Your task to perform on an android device: open a new tab in the chrome app Image 0: 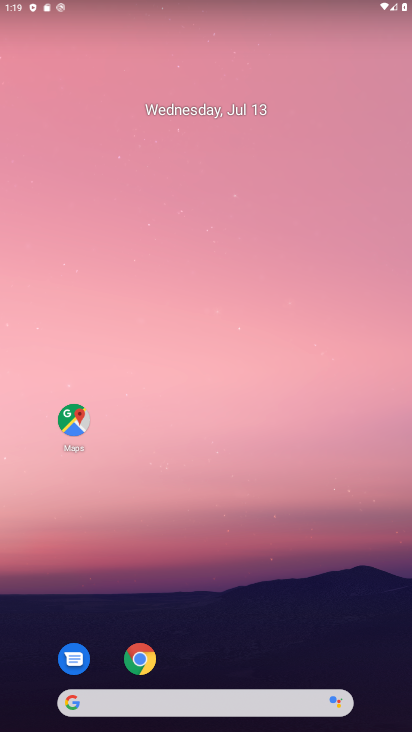
Step 0: click (140, 661)
Your task to perform on an android device: open a new tab in the chrome app Image 1: 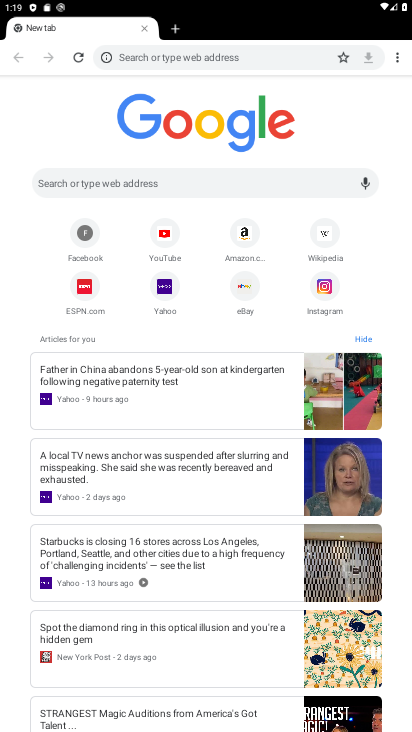
Step 1: click (396, 60)
Your task to perform on an android device: open a new tab in the chrome app Image 2: 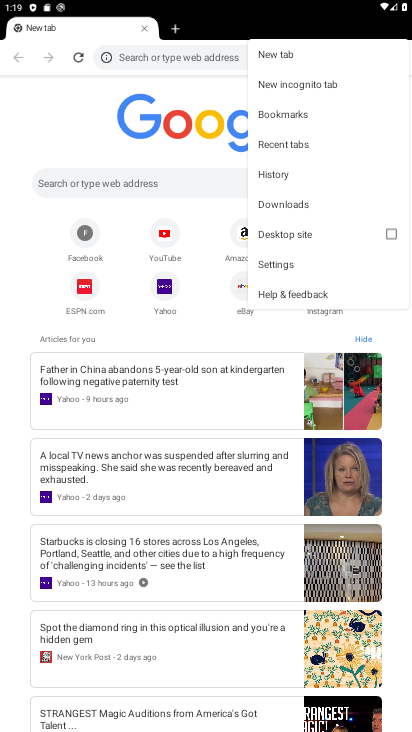
Step 2: click (276, 53)
Your task to perform on an android device: open a new tab in the chrome app Image 3: 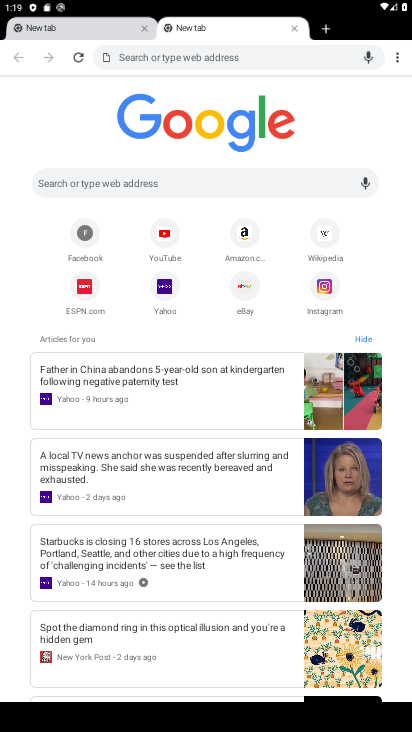
Step 3: task complete